Your task to perform on an android device: Open my contact list Image 0: 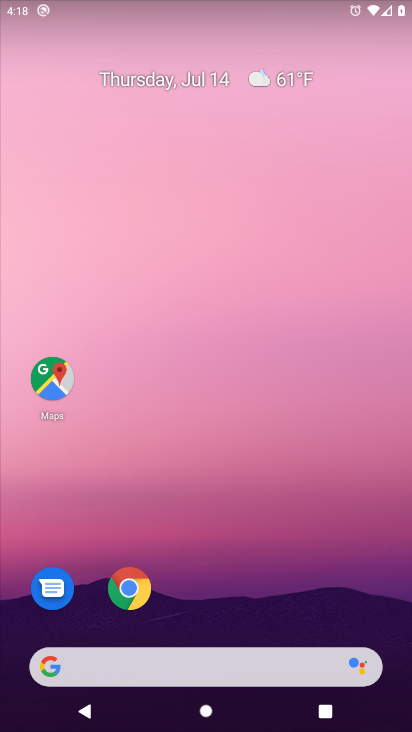
Step 0: drag from (185, 621) to (157, 9)
Your task to perform on an android device: Open my contact list Image 1: 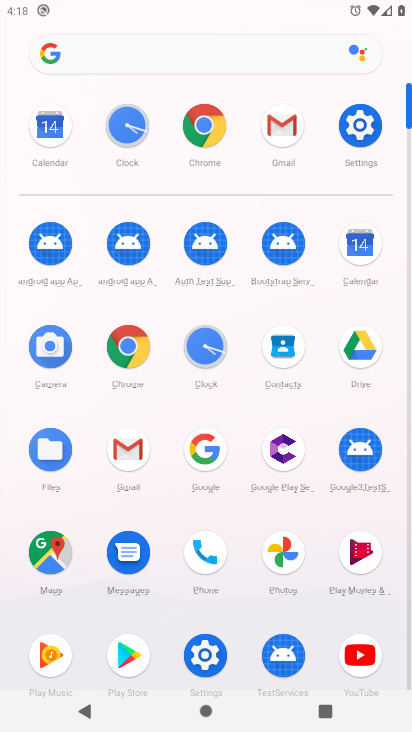
Step 1: click (281, 355)
Your task to perform on an android device: Open my contact list Image 2: 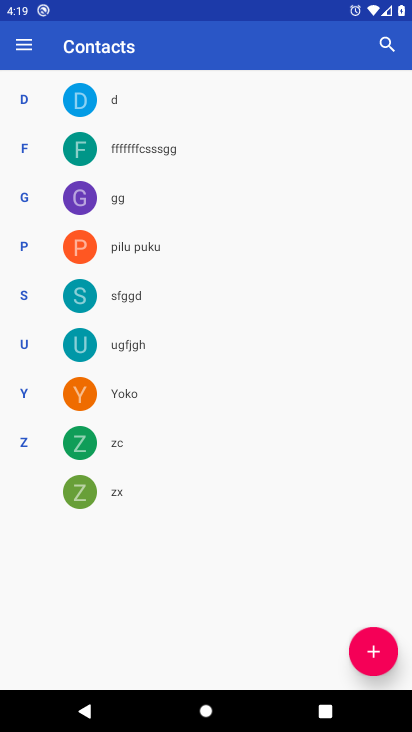
Step 2: task complete